Your task to perform on an android device: Open the calendar app, open the side menu, and click the "Day" option Image 0: 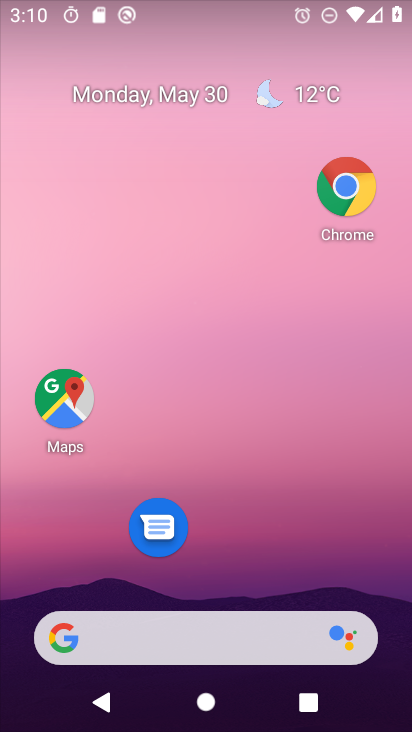
Step 0: drag from (201, 580) to (265, 4)
Your task to perform on an android device: Open the calendar app, open the side menu, and click the "Day" option Image 1: 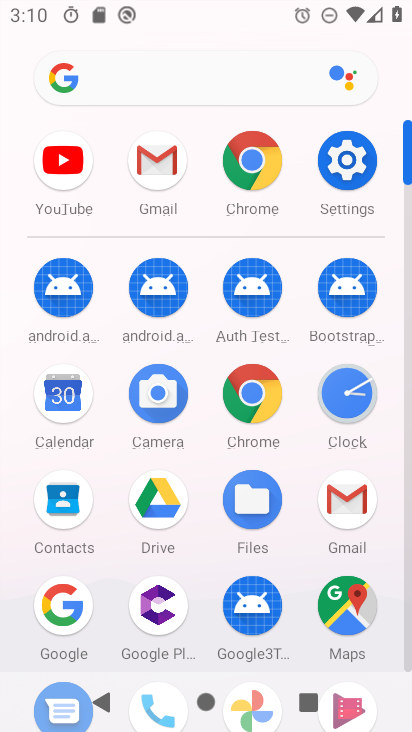
Step 1: click (58, 374)
Your task to perform on an android device: Open the calendar app, open the side menu, and click the "Day" option Image 2: 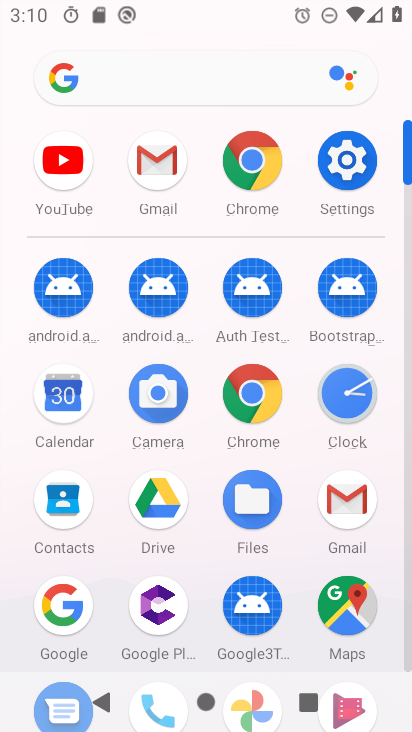
Step 2: click (58, 374)
Your task to perform on an android device: Open the calendar app, open the side menu, and click the "Day" option Image 3: 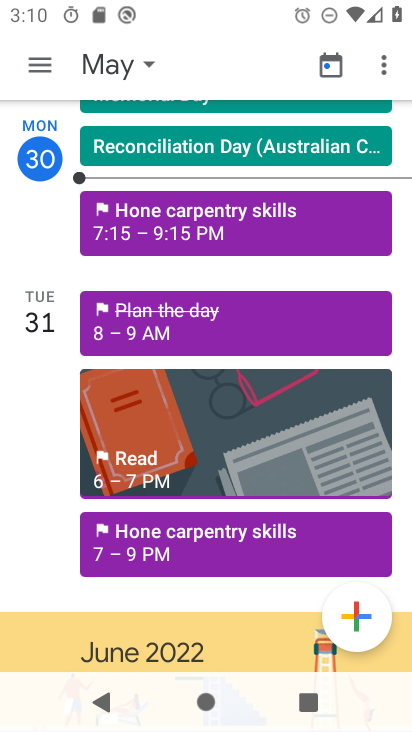
Step 3: click (47, 73)
Your task to perform on an android device: Open the calendar app, open the side menu, and click the "Day" option Image 4: 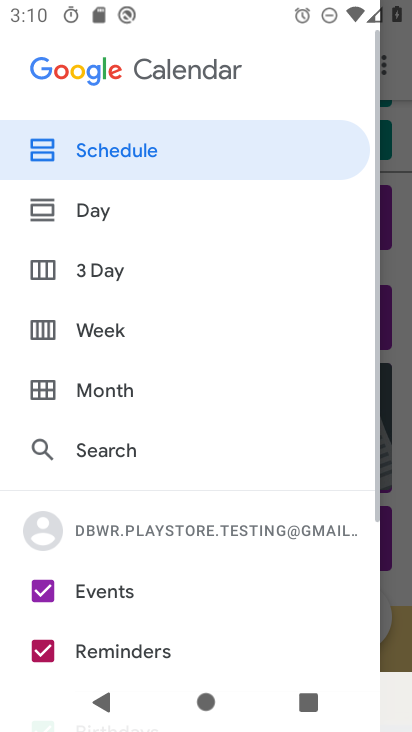
Step 4: click (116, 211)
Your task to perform on an android device: Open the calendar app, open the side menu, and click the "Day" option Image 5: 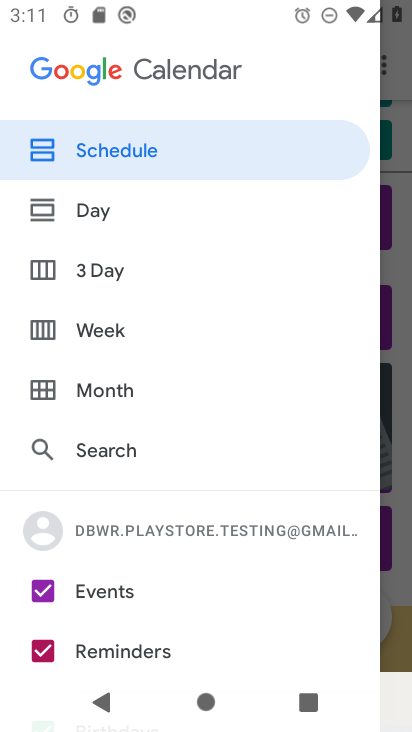
Step 5: click (132, 211)
Your task to perform on an android device: Open the calendar app, open the side menu, and click the "Day" option Image 6: 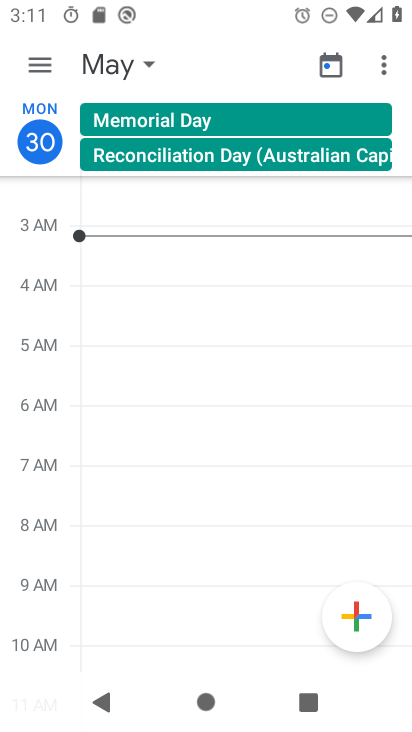
Step 6: task complete